Your task to perform on an android device: turn smart compose on in the gmail app Image 0: 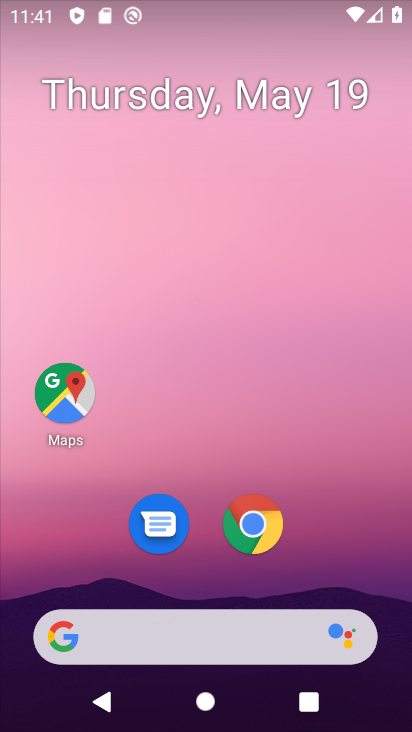
Step 0: drag from (330, 503) to (251, 86)
Your task to perform on an android device: turn smart compose on in the gmail app Image 1: 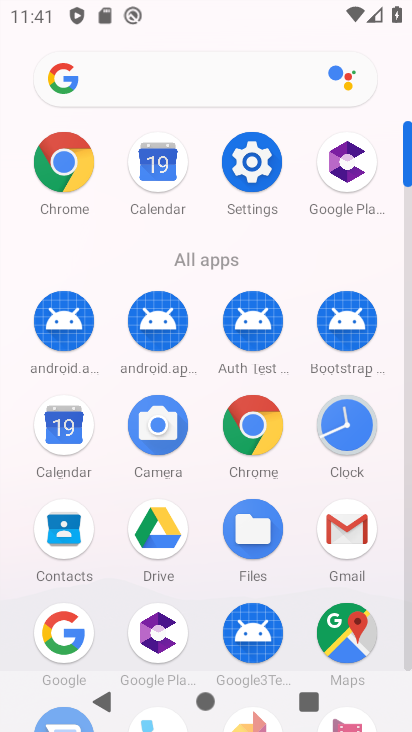
Step 1: click (350, 520)
Your task to perform on an android device: turn smart compose on in the gmail app Image 2: 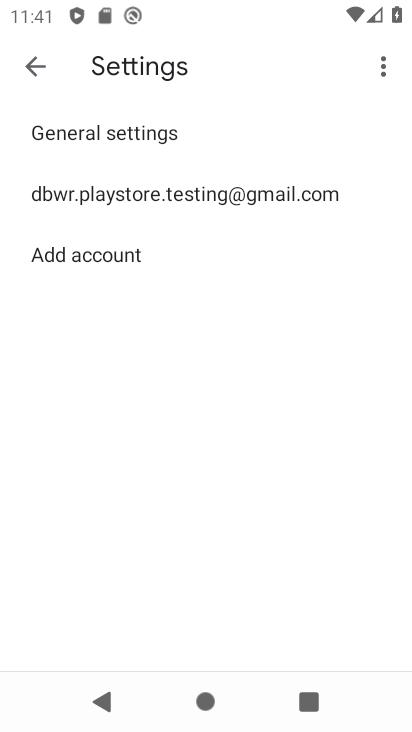
Step 2: click (238, 194)
Your task to perform on an android device: turn smart compose on in the gmail app Image 3: 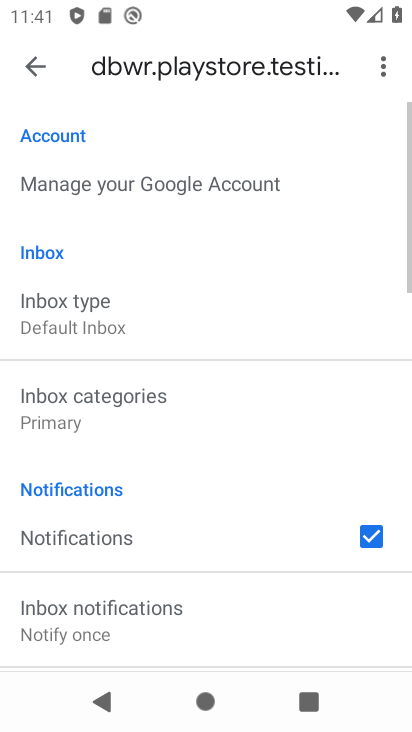
Step 3: task complete